Your task to perform on an android device: Show me recent news Image 0: 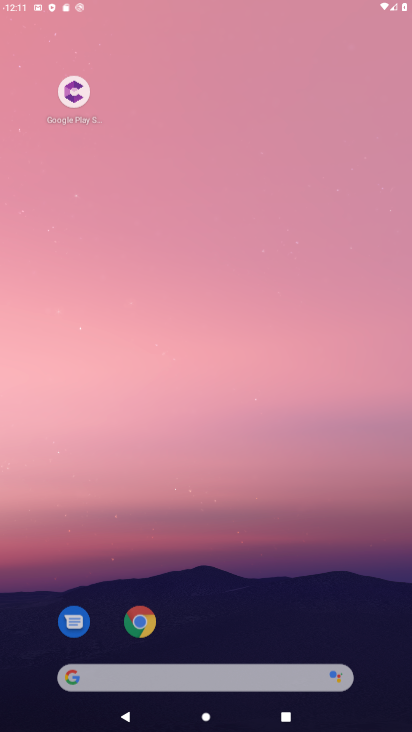
Step 0: click (191, 64)
Your task to perform on an android device: Show me recent news Image 1: 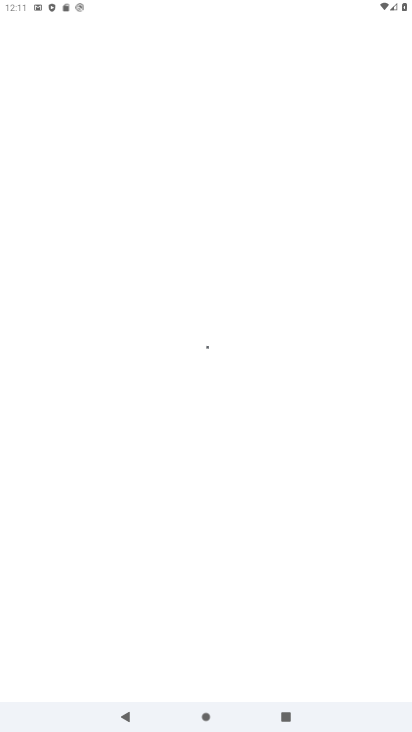
Step 1: press home button
Your task to perform on an android device: Show me recent news Image 2: 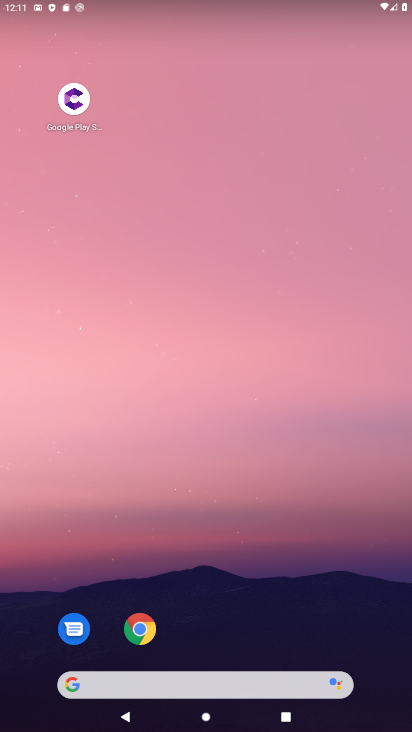
Step 2: drag from (204, 676) to (172, 79)
Your task to perform on an android device: Show me recent news Image 3: 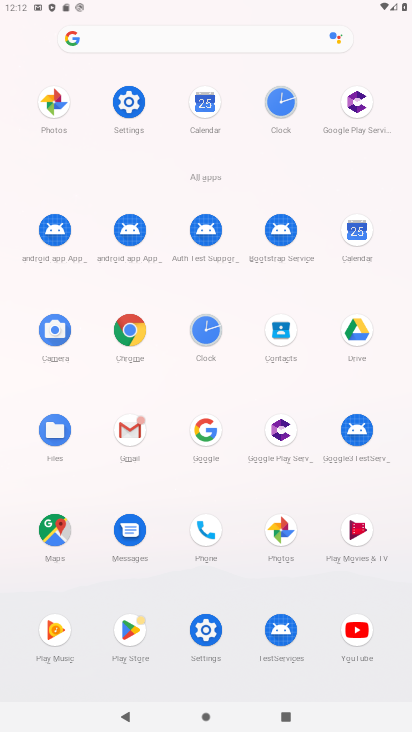
Step 3: click (210, 441)
Your task to perform on an android device: Show me recent news Image 4: 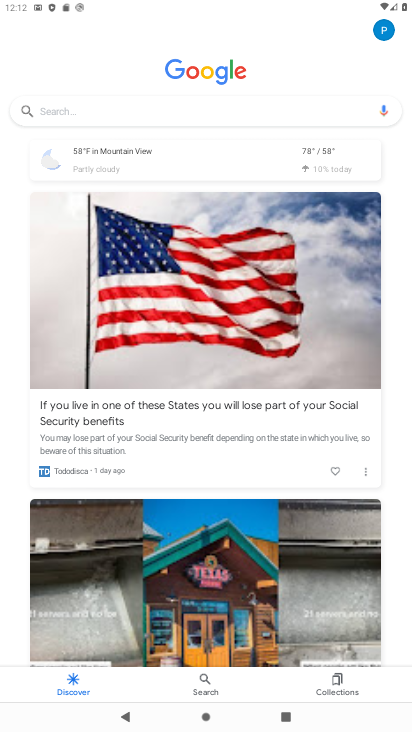
Step 4: task complete